Your task to perform on an android device: Open Google Maps Image 0: 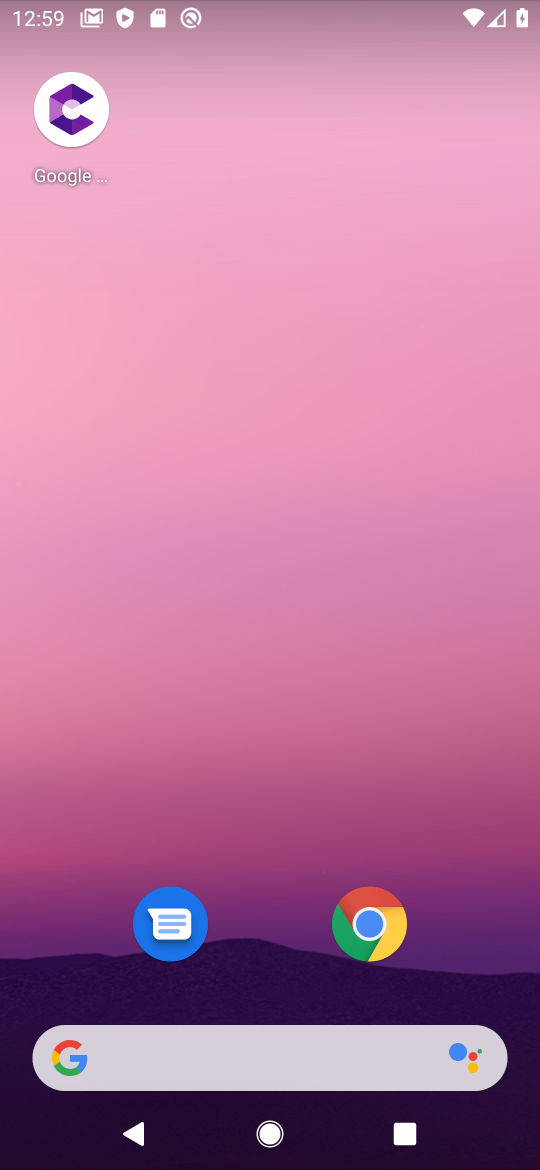
Step 0: drag from (374, 1) to (538, 728)
Your task to perform on an android device: Open Google Maps Image 1: 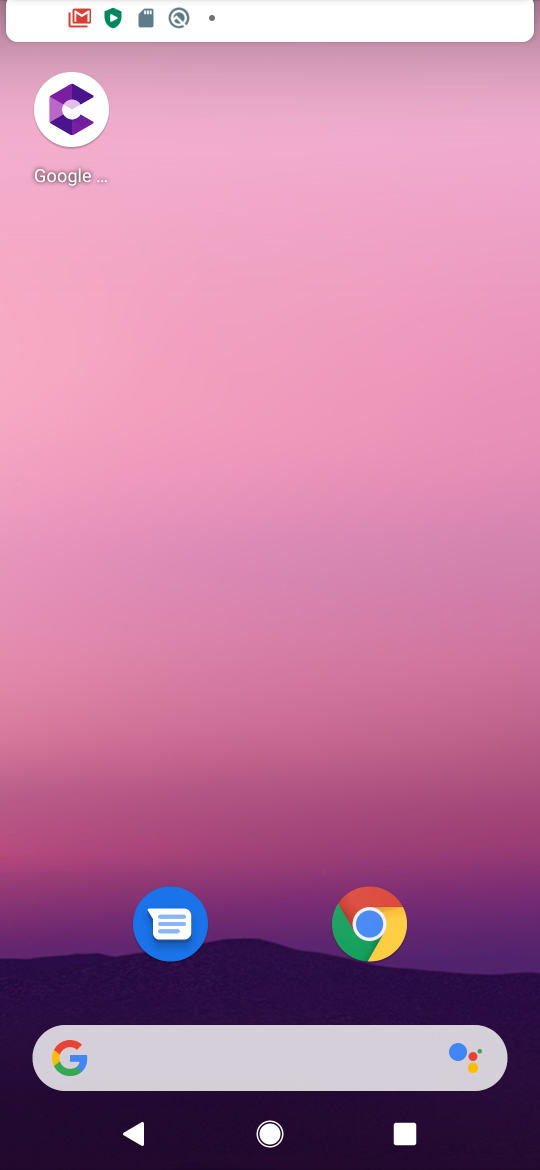
Step 1: drag from (157, 814) to (130, 164)
Your task to perform on an android device: Open Google Maps Image 2: 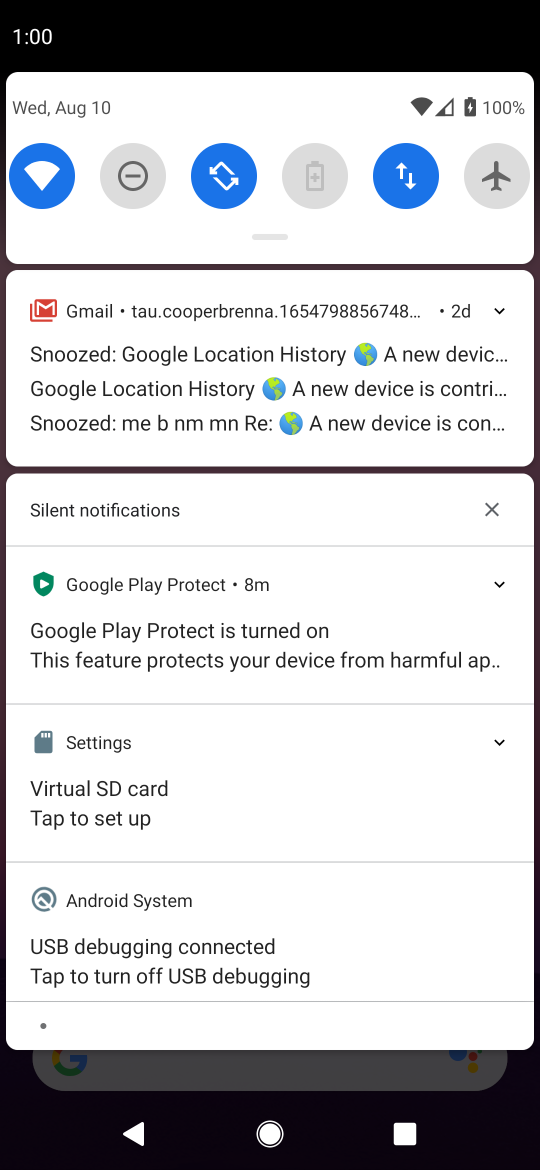
Step 2: click (173, 1075)
Your task to perform on an android device: Open Google Maps Image 3: 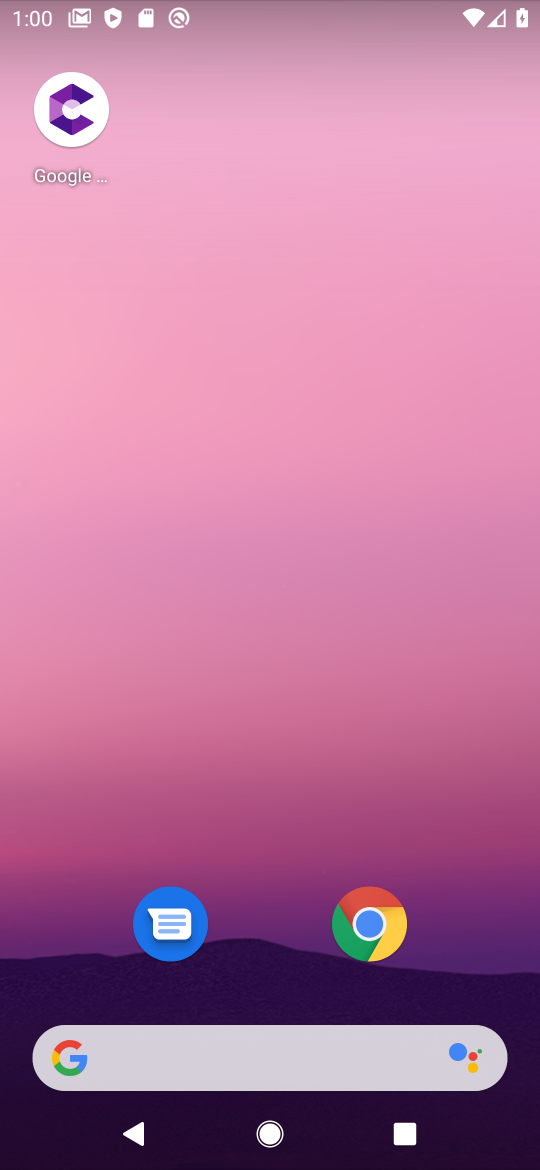
Step 3: drag from (279, 800) to (231, 241)
Your task to perform on an android device: Open Google Maps Image 4: 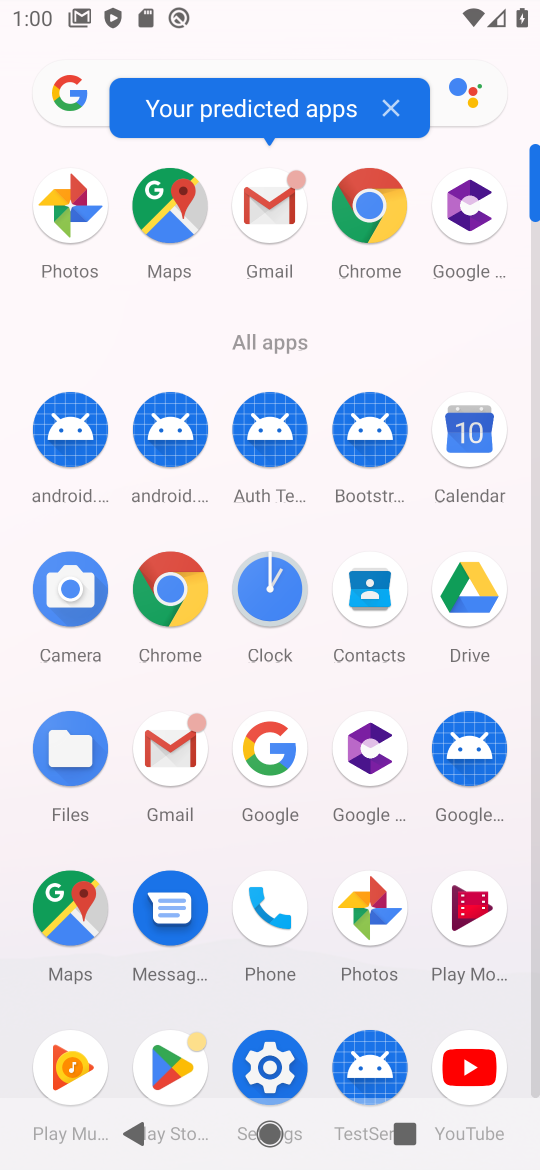
Step 4: click (70, 903)
Your task to perform on an android device: Open Google Maps Image 5: 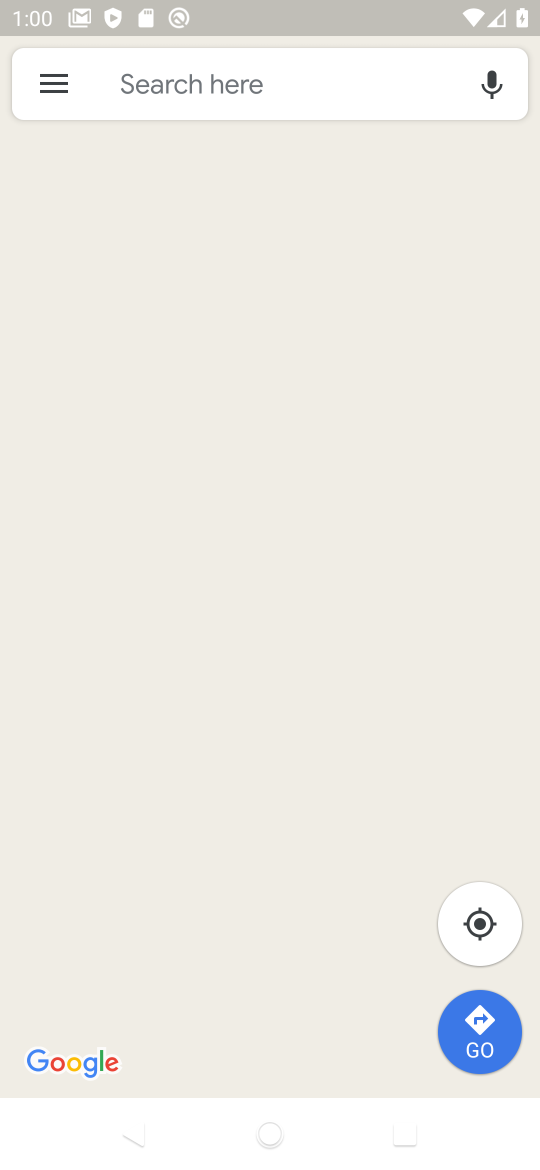
Step 5: task complete